Your task to perform on an android device: Open Google Maps and go to "Timeline" Image 0: 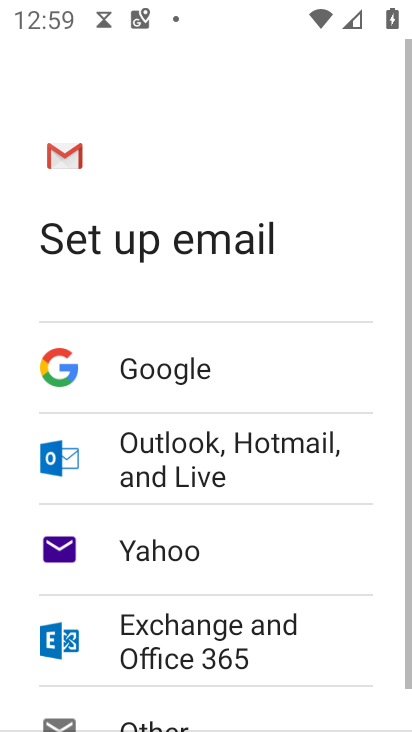
Step 0: press home button
Your task to perform on an android device: Open Google Maps and go to "Timeline" Image 1: 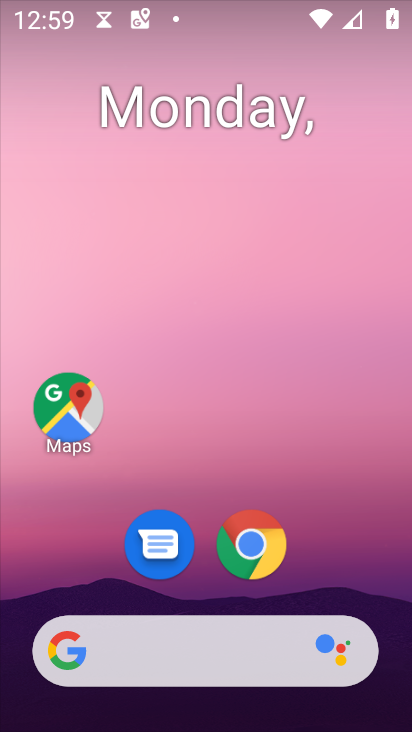
Step 1: drag from (319, 576) to (363, 210)
Your task to perform on an android device: Open Google Maps and go to "Timeline" Image 2: 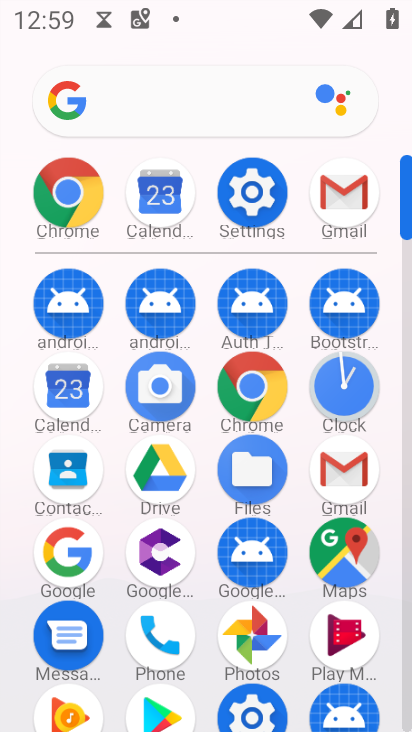
Step 2: click (347, 532)
Your task to perform on an android device: Open Google Maps and go to "Timeline" Image 3: 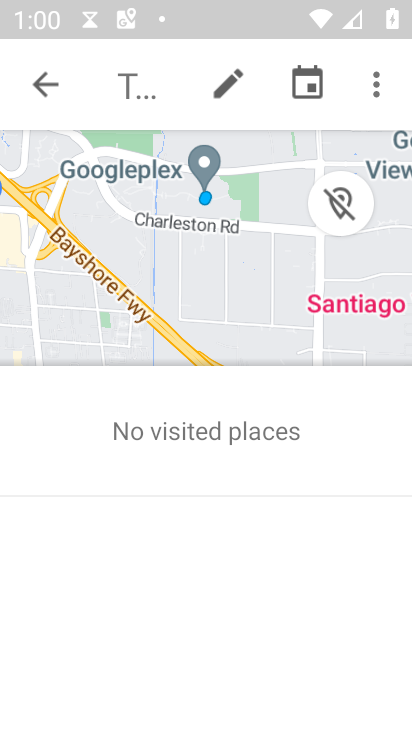
Step 3: task complete